Your task to perform on an android device: turn on wifi Image 0: 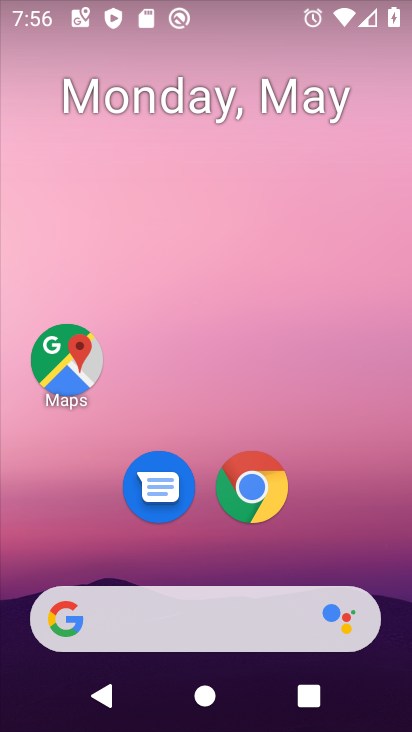
Step 0: press home button
Your task to perform on an android device: turn on wifi Image 1: 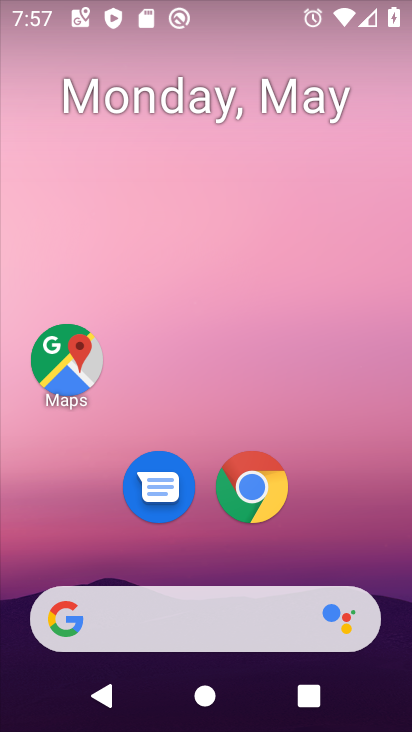
Step 1: task complete